Your task to perform on an android device: Open the web browser Image 0: 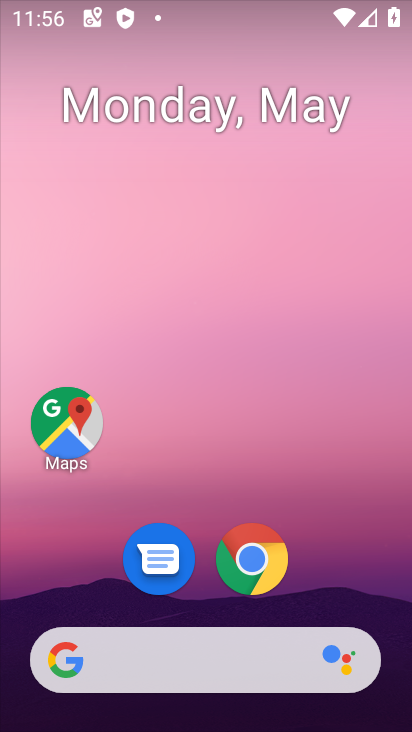
Step 0: click (248, 560)
Your task to perform on an android device: Open the web browser Image 1: 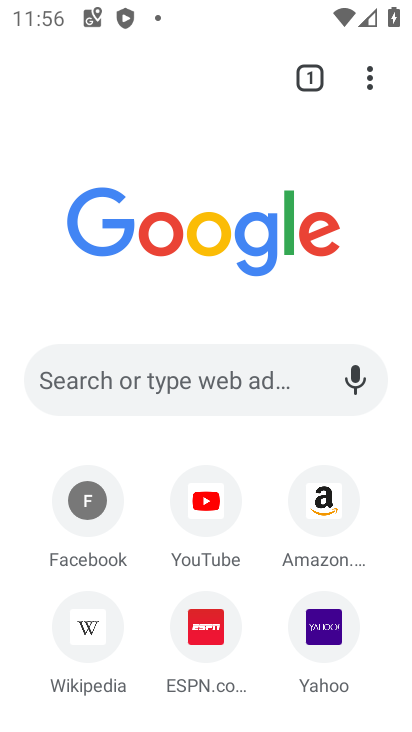
Step 1: click (378, 69)
Your task to perform on an android device: Open the web browser Image 2: 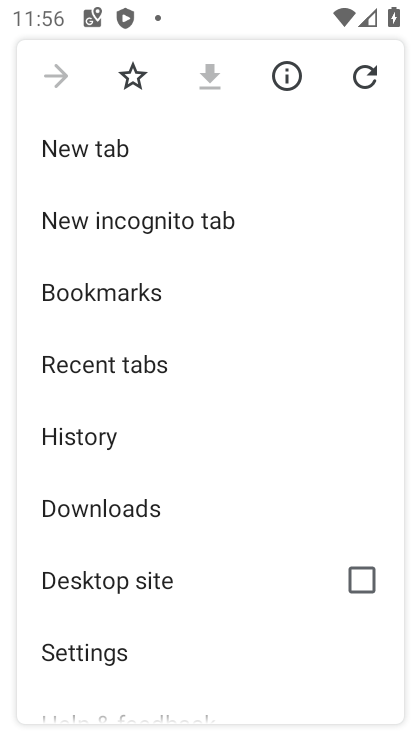
Step 2: task complete